Your task to perform on an android device: Play the last video I watched on Youtube Image 0: 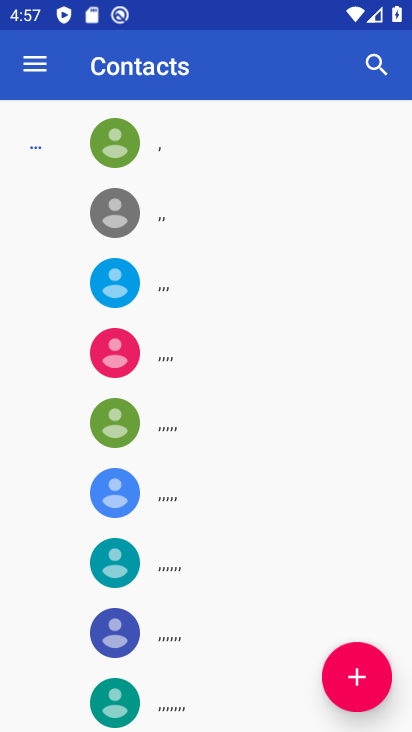
Step 0: press back button
Your task to perform on an android device: Play the last video I watched on Youtube Image 1: 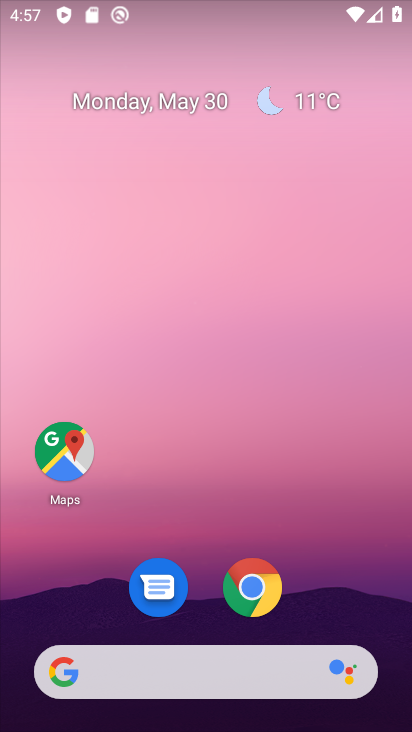
Step 1: drag from (366, 594) to (202, 7)
Your task to perform on an android device: Play the last video I watched on Youtube Image 2: 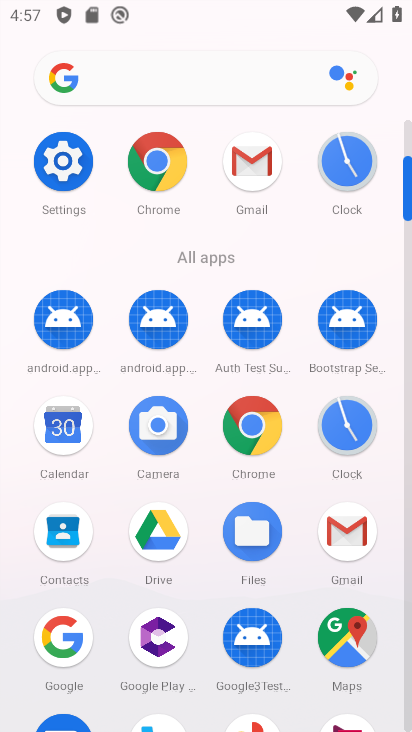
Step 2: drag from (8, 533) to (11, 207)
Your task to perform on an android device: Play the last video I watched on Youtube Image 3: 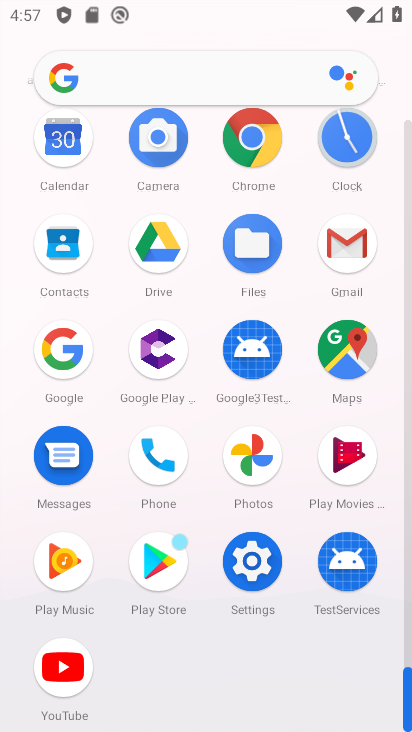
Step 3: click (61, 669)
Your task to perform on an android device: Play the last video I watched on Youtube Image 4: 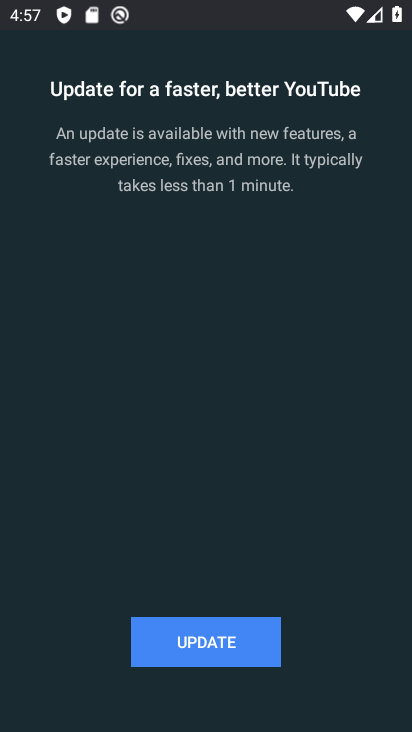
Step 4: click (212, 642)
Your task to perform on an android device: Play the last video I watched on Youtube Image 5: 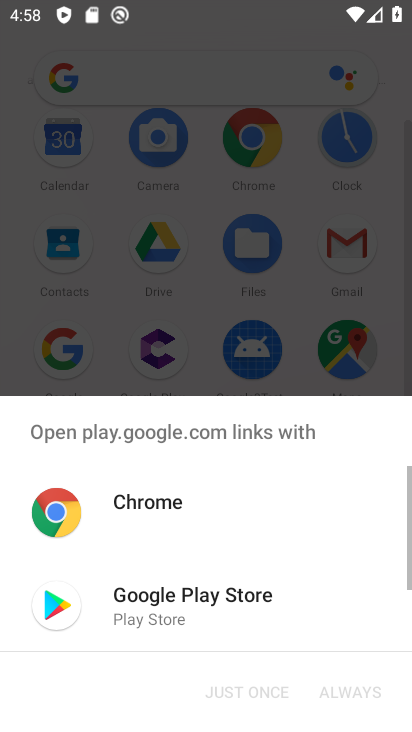
Step 5: click (213, 621)
Your task to perform on an android device: Play the last video I watched on Youtube Image 6: 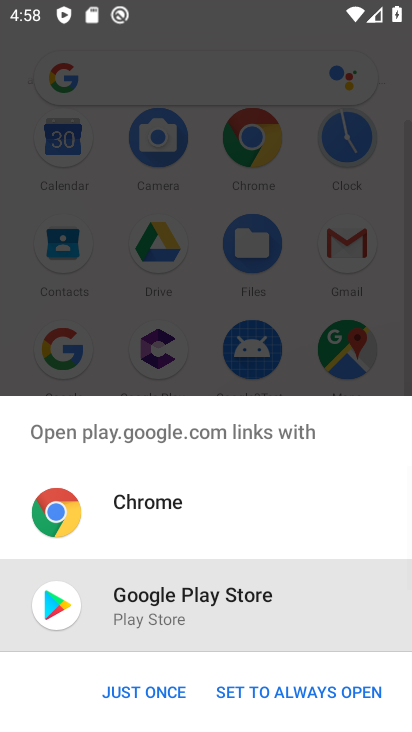
Step 6: click (135, 693)
Your task to perform on an android device: Play the last video I watched on Youtube Image 7: 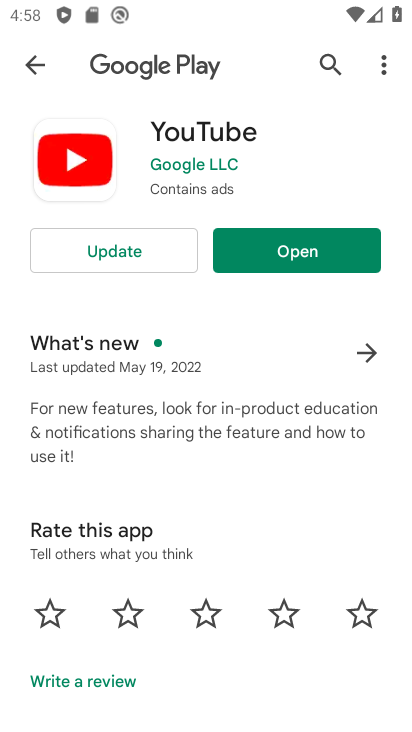
Step 7: click (112, 256)
Your task to perform on an android device: Play the last video I watched on Youtube Image 8: 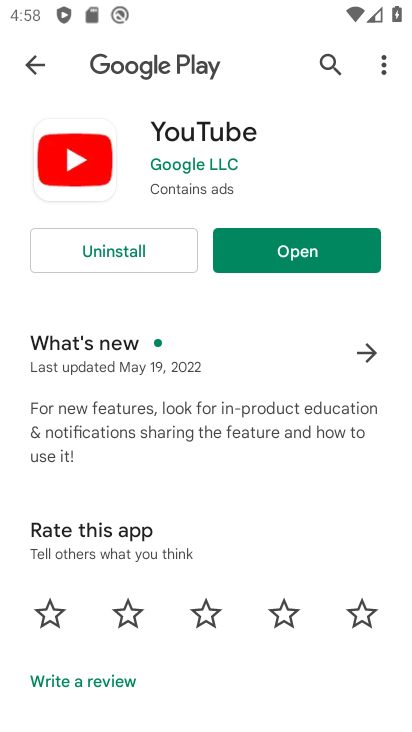
Step 8: click (272, 248)
Your task to perform on an android device: Play the last video I watched on Youtube Image 9: 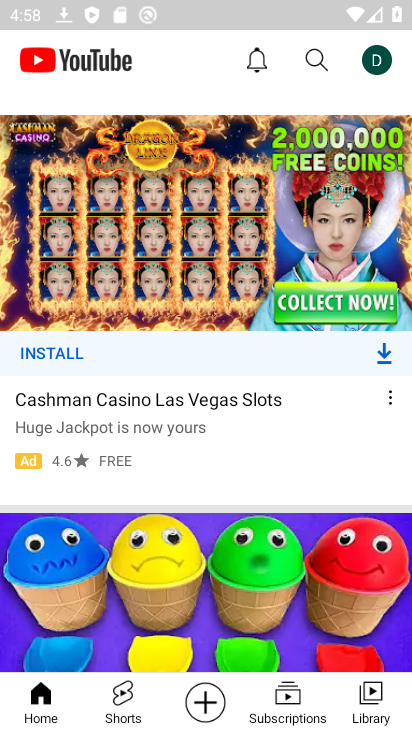
Step 9: click (382, 701)
Your task to perform on an android device: Play the last video I watched on Youtube Image 10: 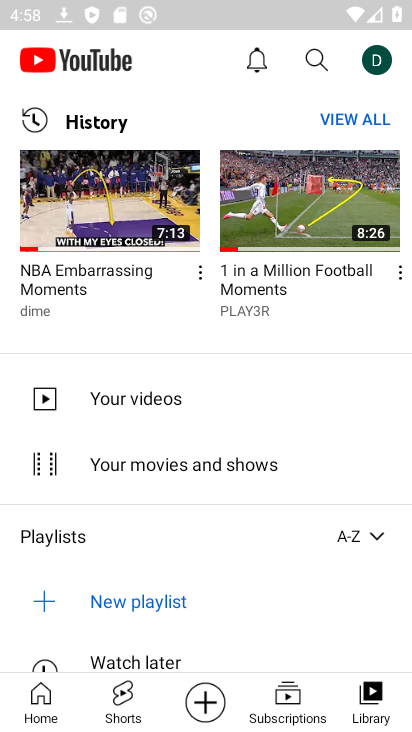
Step 10: click (117, 223)
Your task to perform on an android device: Play the last video I watched on Youtube Image 11: 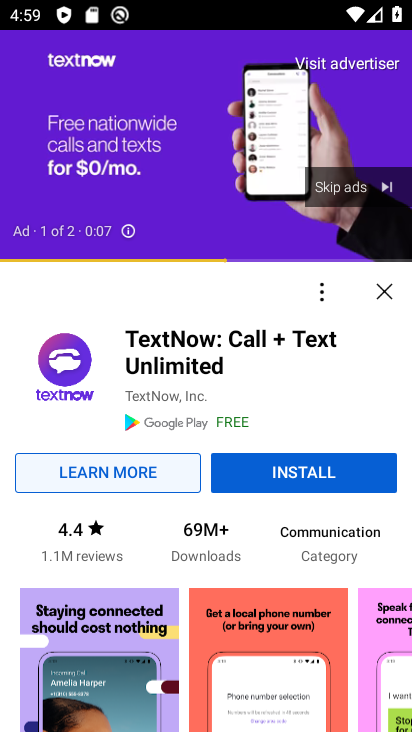
Step 11: click (352, 176)
Your task to perform on an android device: Play the last video I watched on Youtube Image 12: 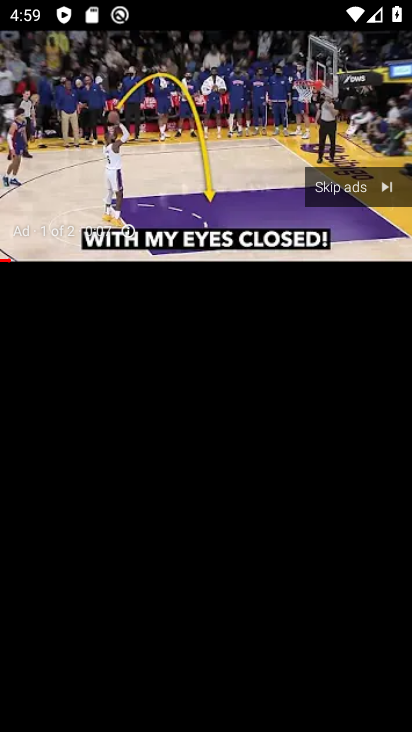
Step 12: click (339, 185)
Your task to perform on an android device: Play the last video I watched on Youtube Image 13: 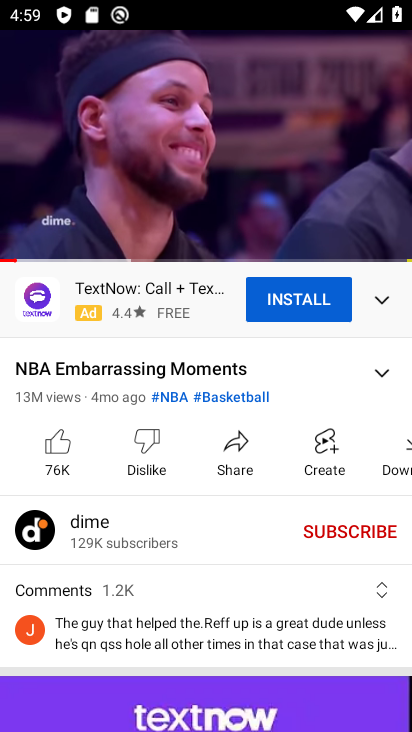
Step 13: task complete